Your task to perform on an android device: all mails in gmail Image 0: 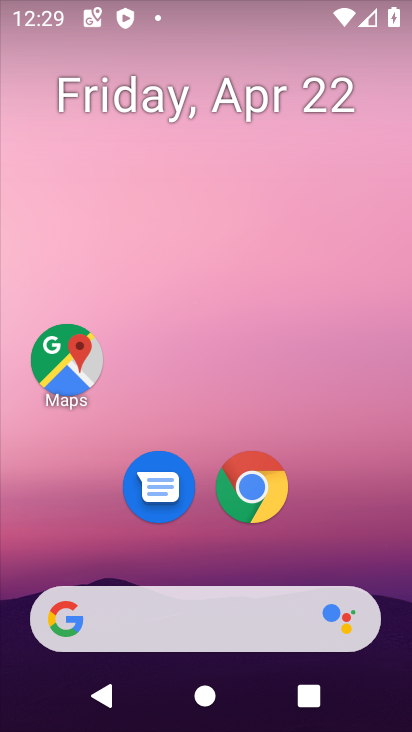
Step 0: drag from (197, 472) to (197, 112)
Your task to perform on an android device: all mails in gmail Image 1: 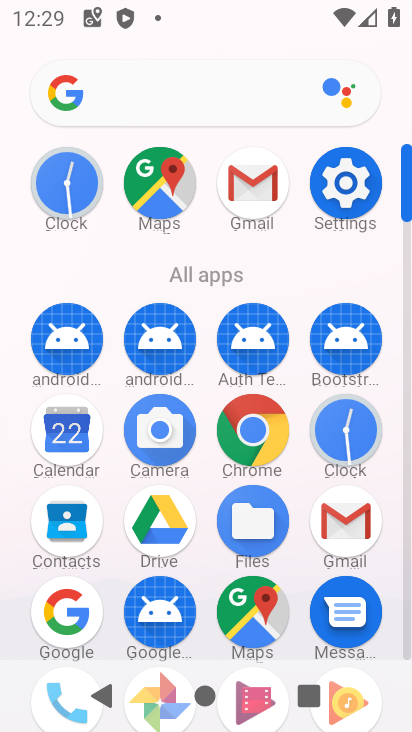
Step 1: click (340, 516)
Your task to perform on an android device: all mails in gmail Image 2: 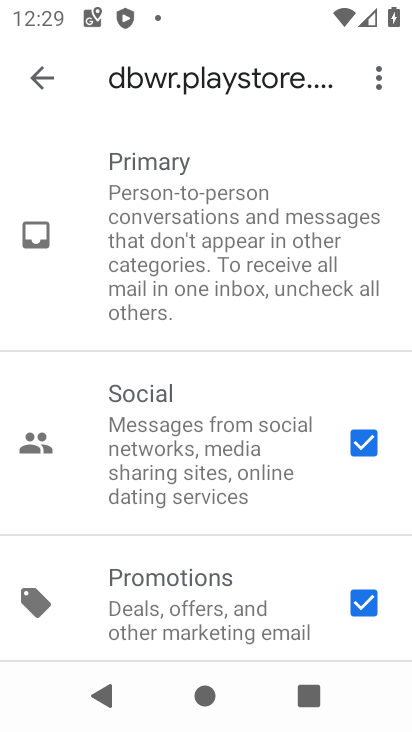
Step 2: click (46, 79)
Your task to perform on an android device: all mails in gmail Image 3: 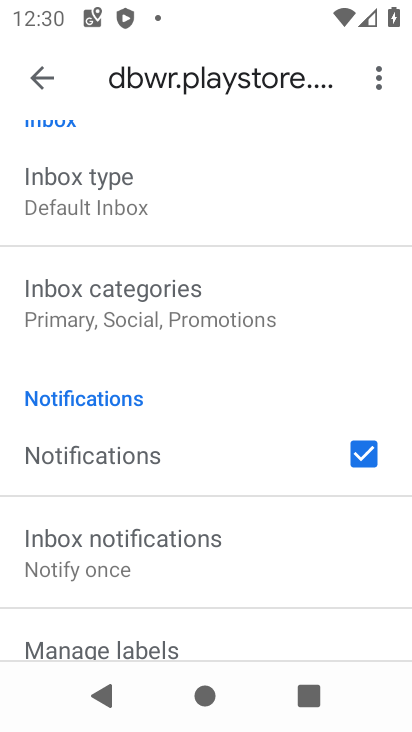
Step 3: click (46, 79)
Your task to perform on an android device: all mails in gmail Image 4: 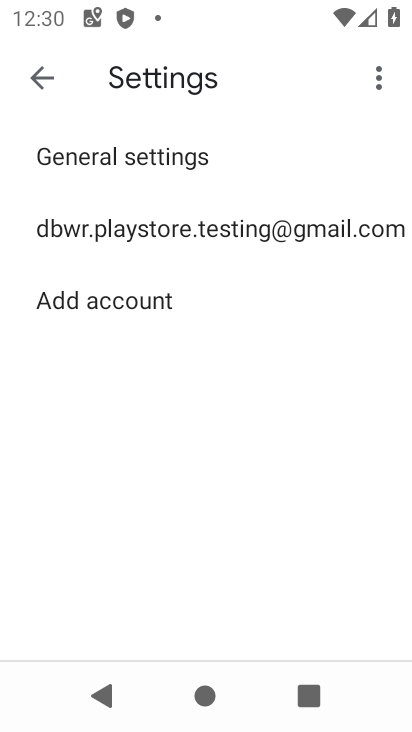
Step 4: click (46, 79)
Your task to perform on an android device: all mails in gmail Image 5: 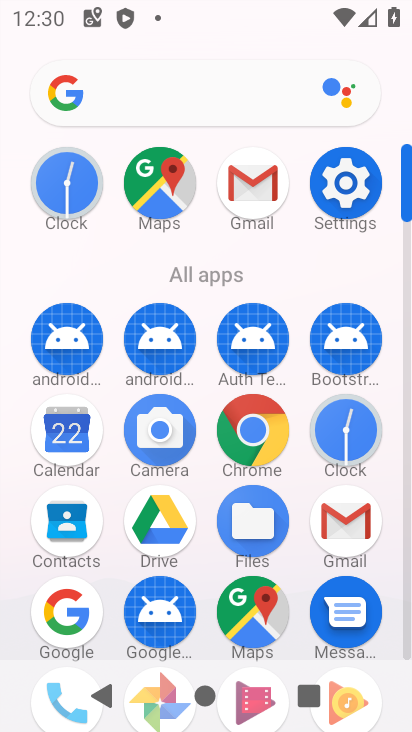
Step 5: click (352, 518)
Your task to perform on an android device: all mails in gmail Image 6: 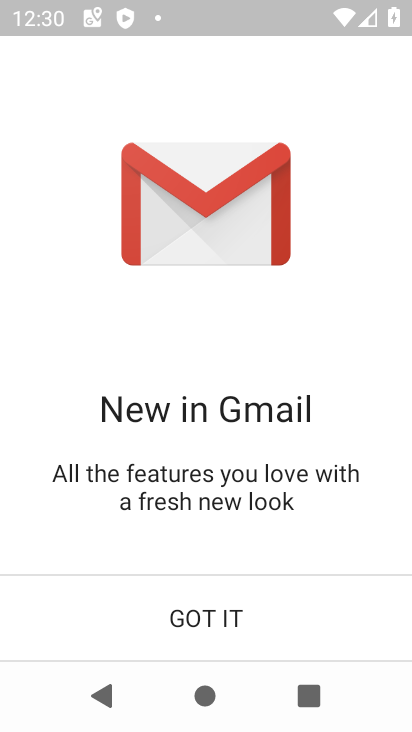
Step 6: click (218, 637)
Your task to perform on an android device: all mails in gmail Image 7: 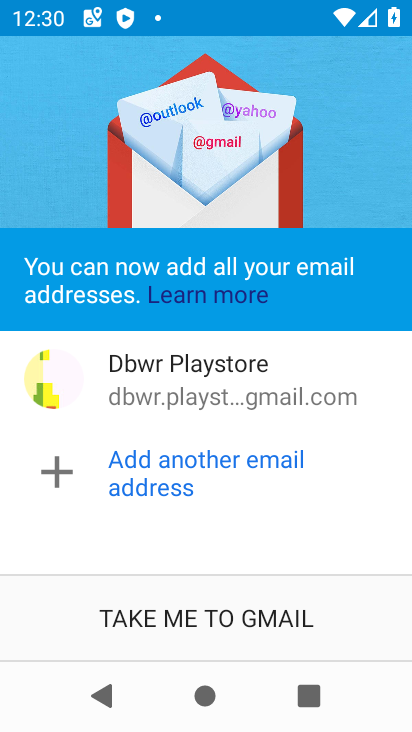
Step 7: click (218, 637)
Your task to perform on an android device: all mails in gmail Image 8: 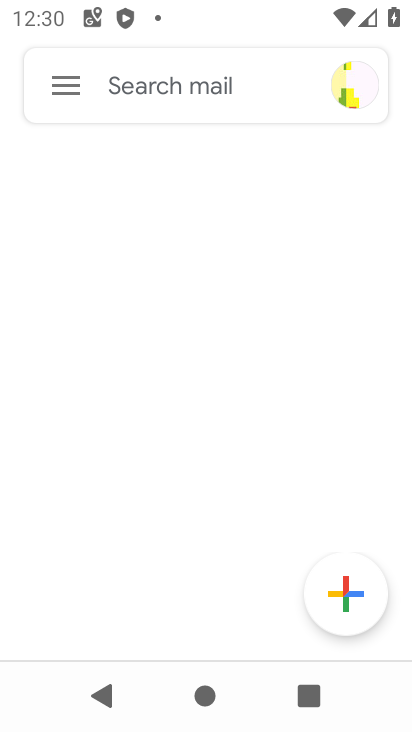
Step 8: click (78, 89)
Your task to perform on an android device: all mails in gmail Image 9: 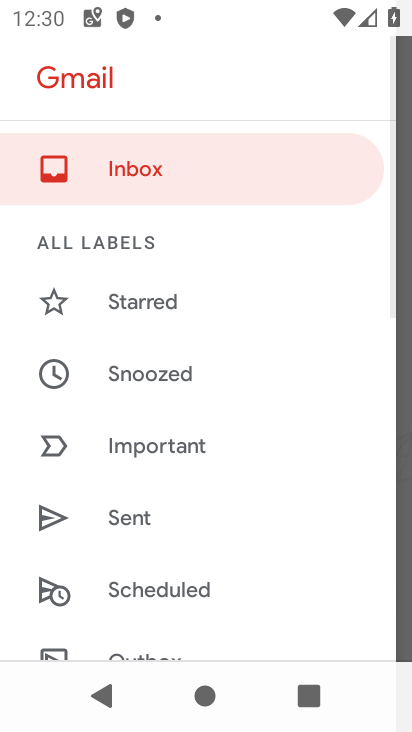
Step 9: drag from (178, 570) to (195, 269)
Your task to perform on an android device: all mails in gmail Image 10: 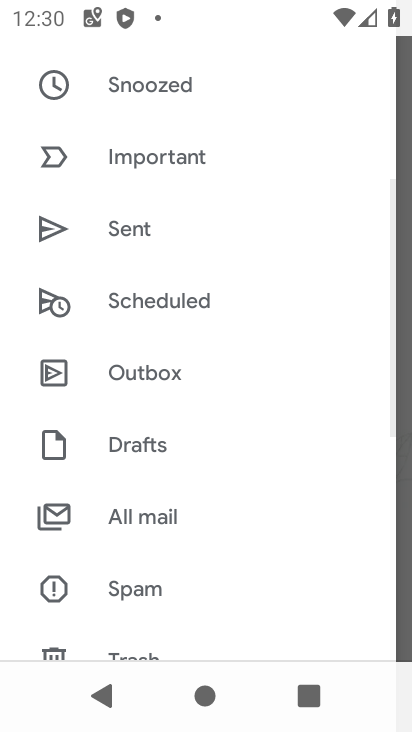
Step 10: click (141, 524)
Your task to perform on an android device: all mails in gmail Image 11: 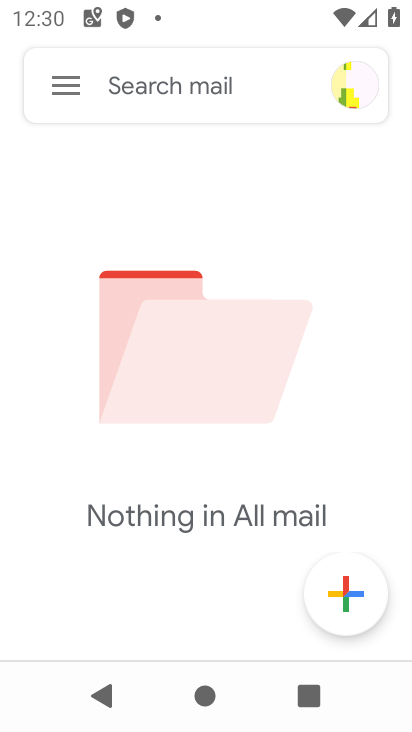
Step 11: task complete